Your task to perform on an android device: clear all cookies in the chrome app Image 0: 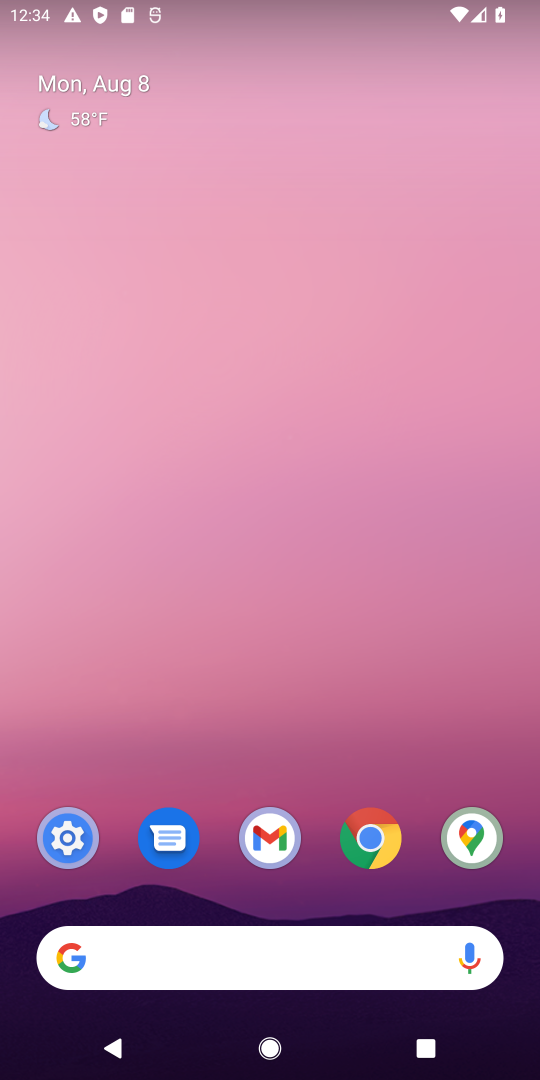
Step 0: press home button
Your task to perform on an android device: clear all cookies in the chrome app Image 1: 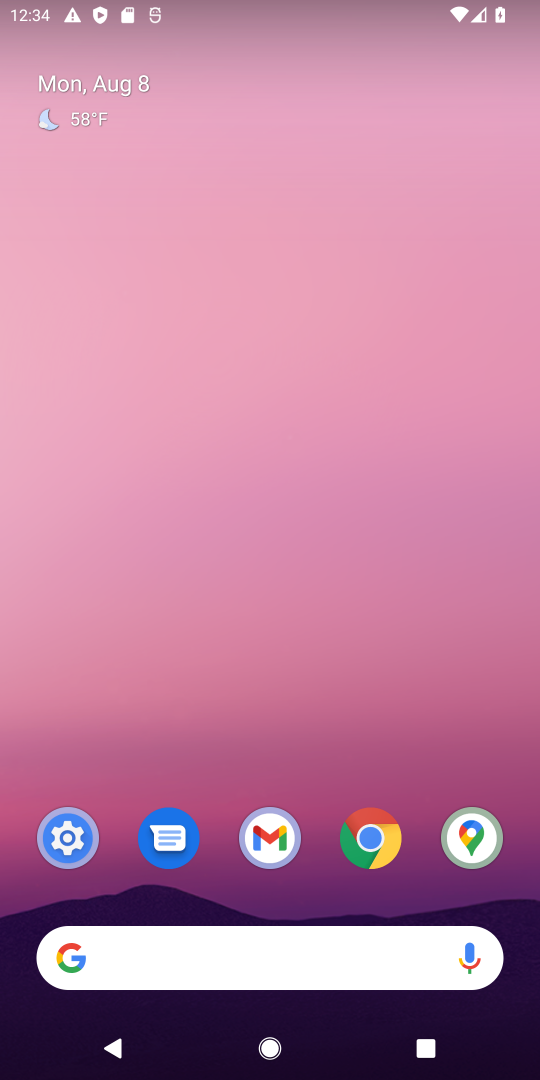
Step 1: click (374, 833)
Your task to perform on an android device: clear all cookies in the chrome app Image 2: 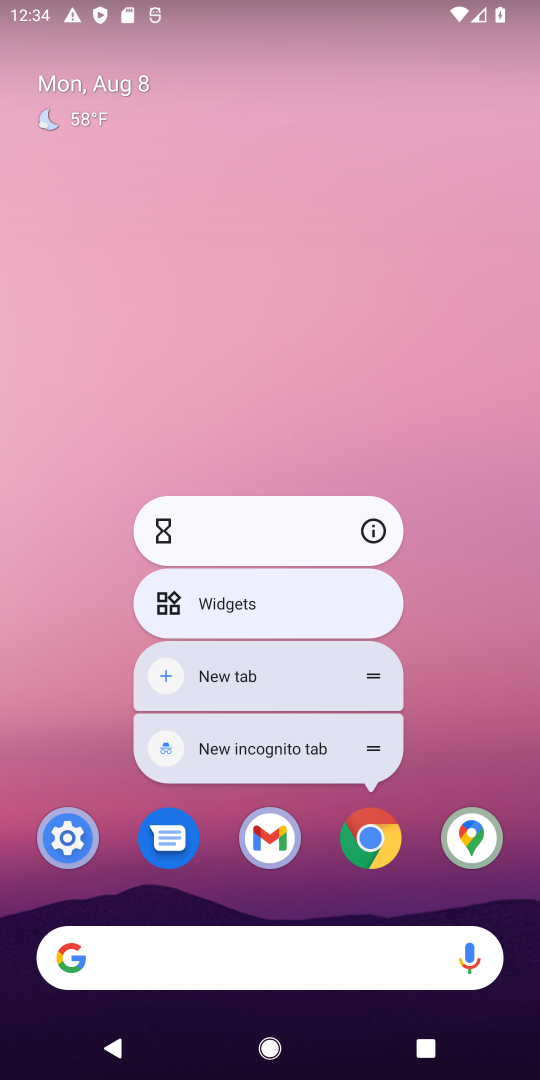
Step 2: click (374, 833)
Your task to perform on an android device: clear all cookies in the chrome app Image 3: 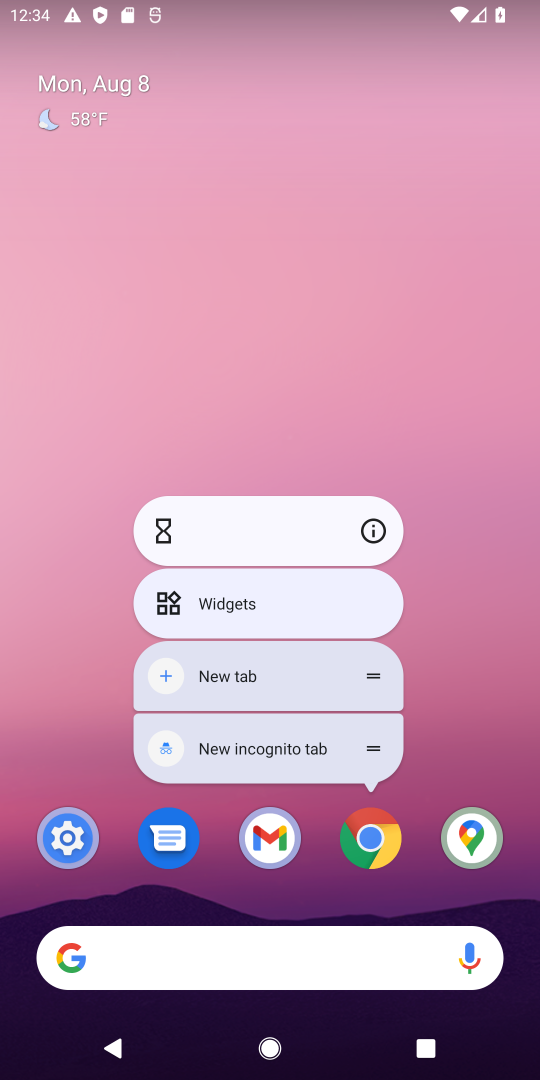
Step 3: click (374, 833)
Your task to perform on an android device: clear all cookies in the chrome app Image 4: 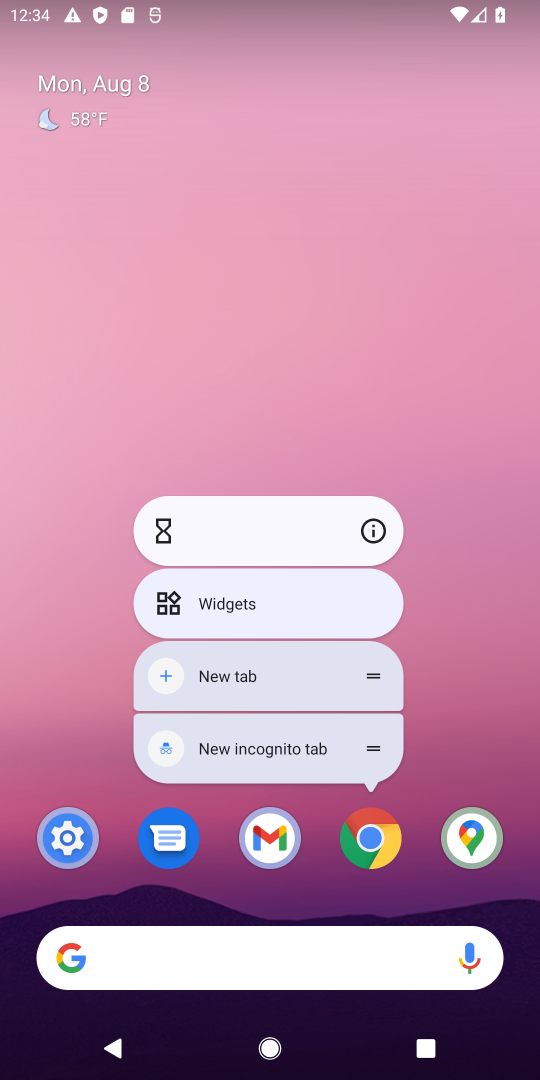
Step 4: click (364, 841)
Your task to perform on an android device: clear all cookies in the chrome app Image 5: 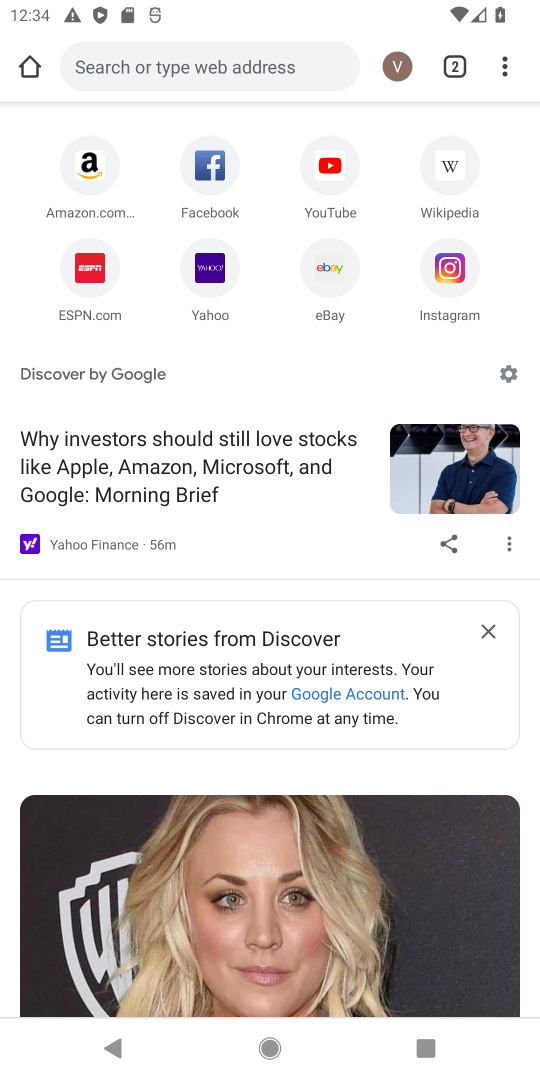
Step 5: drag from (511, 68) to (328, 653)
Your task to perform on an android device: clear all cookies in the chrome app Image 6: 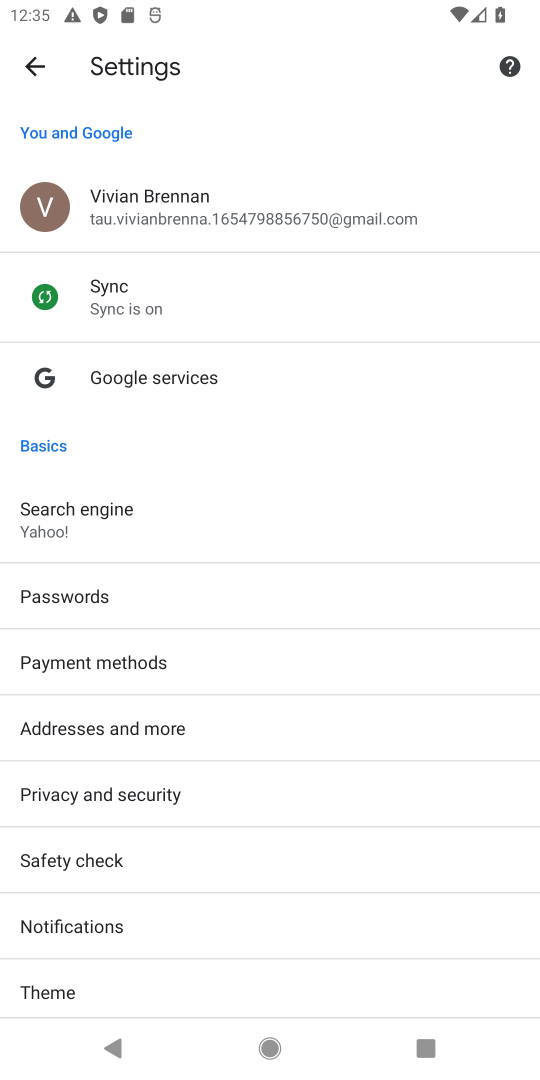
Step 6: click (106, 792)
Your task to perform on an android device: clear all cookies in the chrome app Image 7: 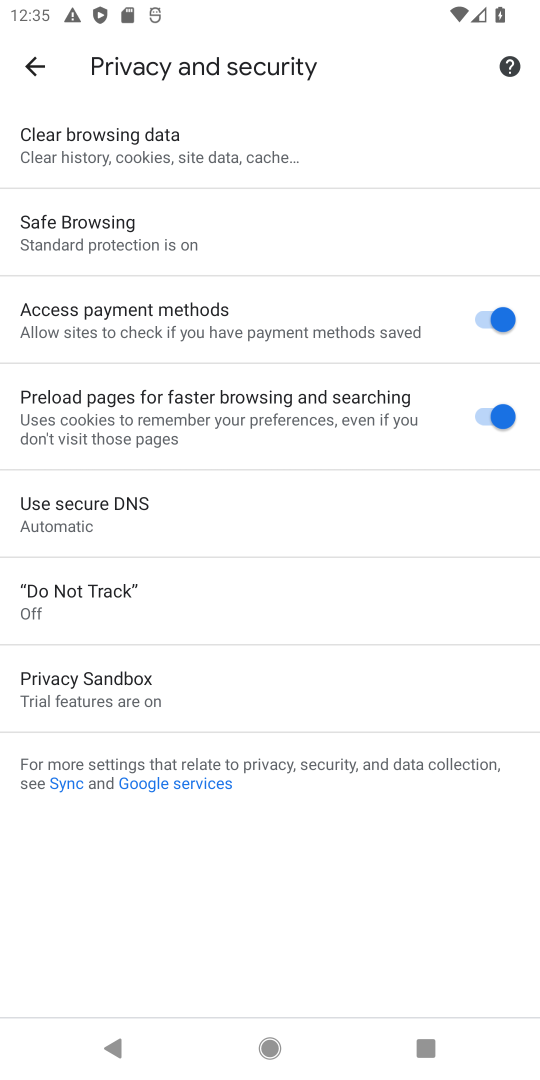
Step 7: click (85, 156)
Your task to perform on an android device: clear all cookies in the chrome app Image 8: 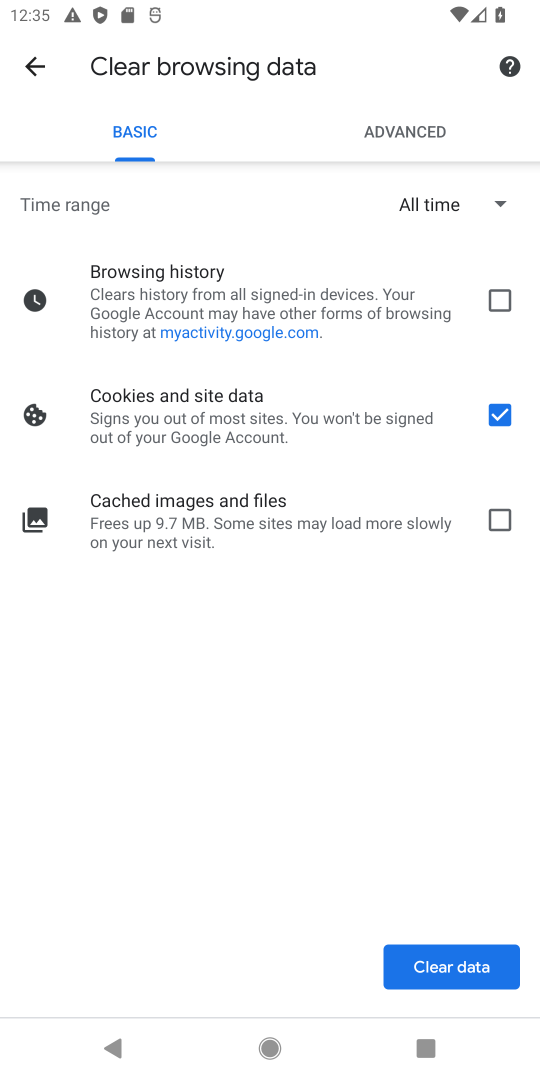
Step 8: click (460, 961)
Your task to perform on an android device: clear all cookies in the chrome app Image 9: 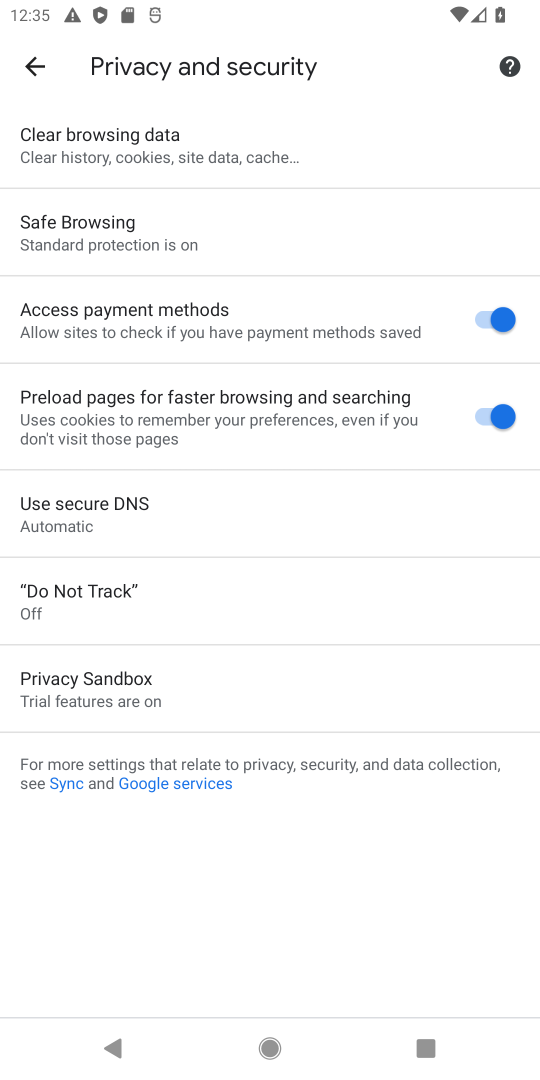
Step 9: task complete